Your task to perform on an android device: set the stopwatch Image 0: 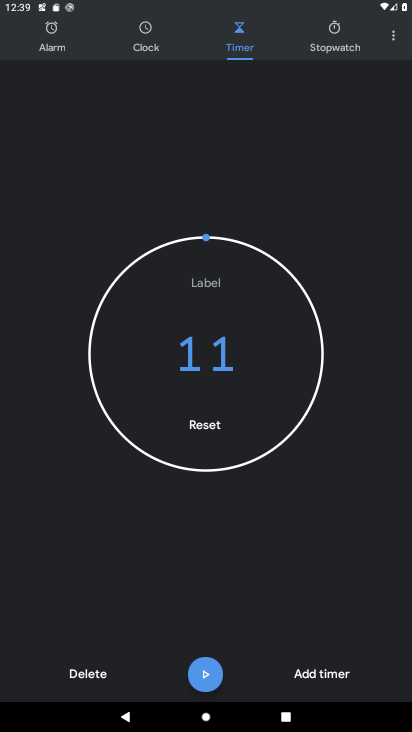
Step 0: click (317, 33)
Your task to perform on an android device: set the stopwatch Image 1: 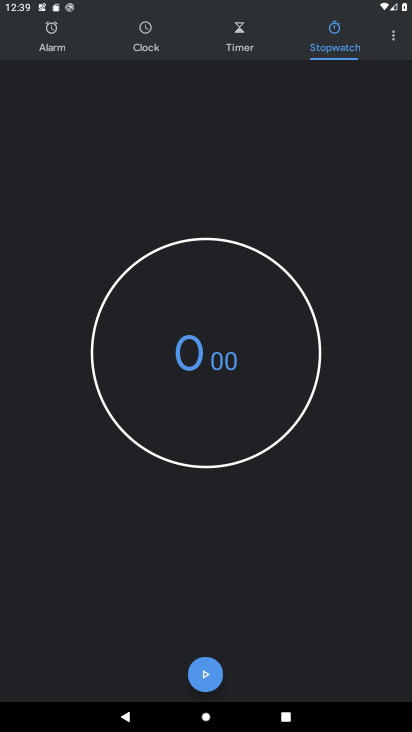
Step 1: click (205, 666)
Your task to perform on an android device: set the stopwatch Image 2: 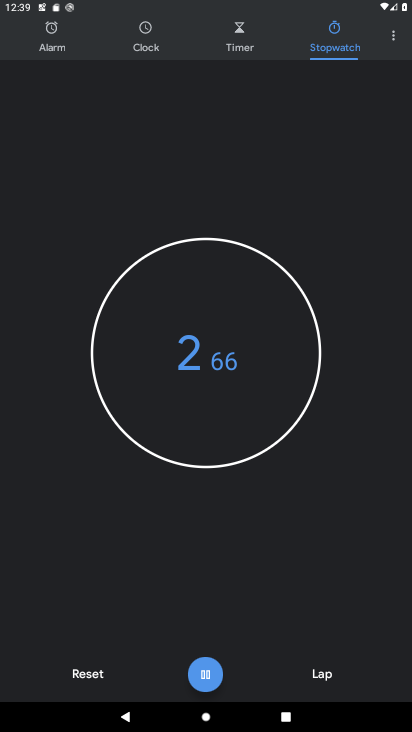
Step 2: task complete